Your task to perform on an android device: turn off airplane mode Image 0: 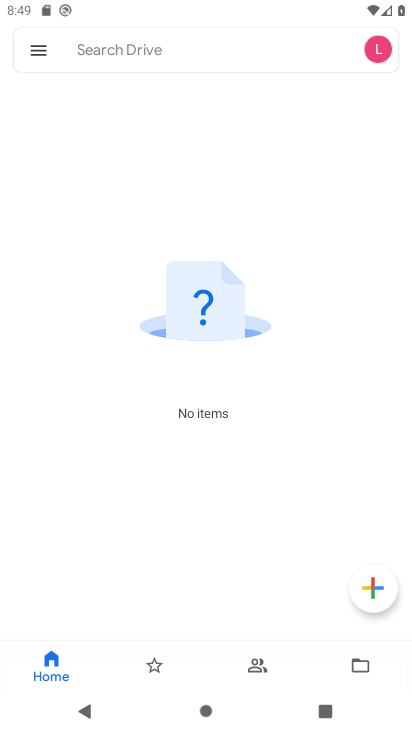
Step 0: drag from (240, 8) to (226, 543)
Your task to perform on an android device: turn off airplane mode Image 1: 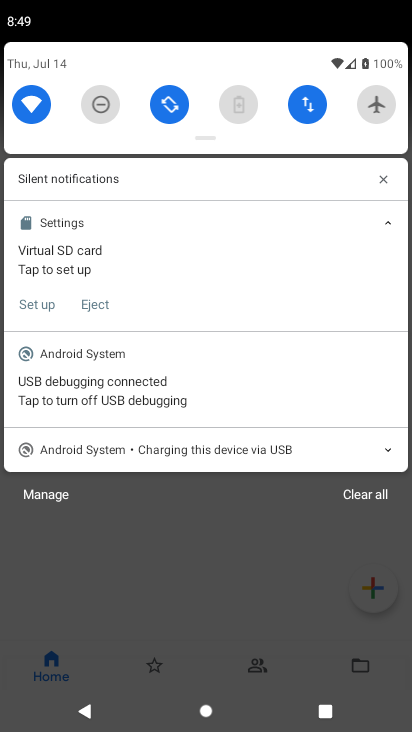
Step 1: task complete